Your task to perform on an android device: See recent photos Image 0: 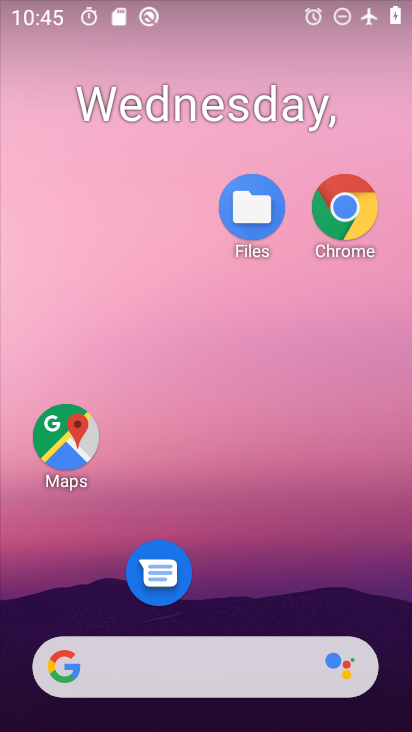
Step 0: drag from (278, 535) to (322, 138)
Your task to perform on an android device: See recent photos Image 1: 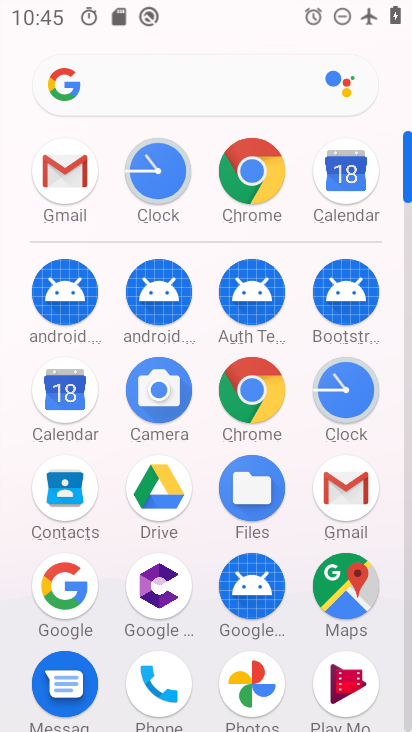
Step 1: click (245, 678)
Your task to perform on an android device: See recent photos Image 2: 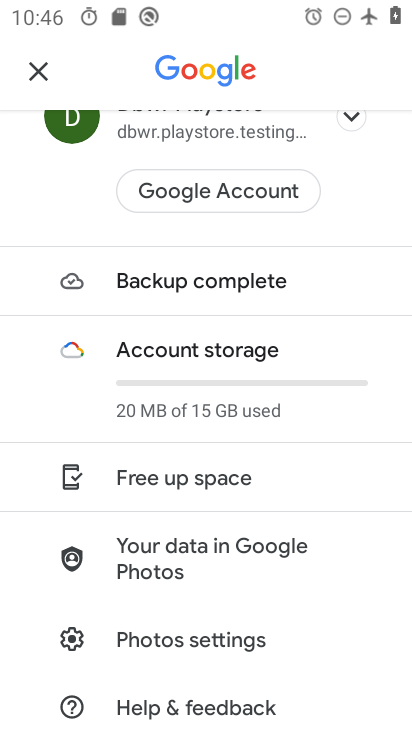
Step 2: click (37, 86)
Your task to perform on an android device: See recent photos Image 3: 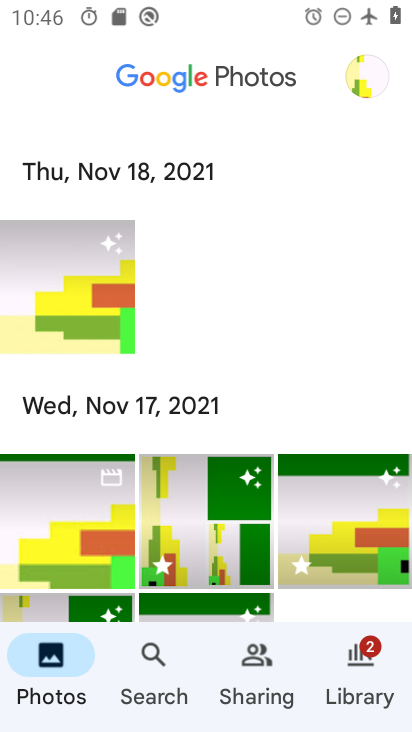
Step 3: task complete